Your task to perform on an android device: turn on priority inbox in the gmail app Image 0: 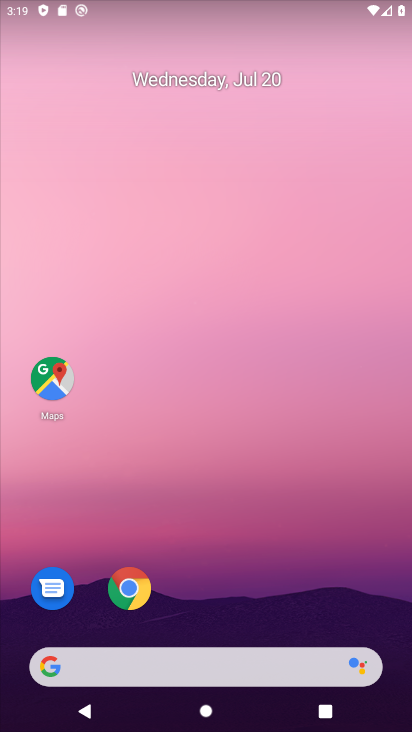
Step 0: drag from (216, 601) to (232, 155)
Your task to perform on an android device: turn on priority inbox in the gmail app Image 1: 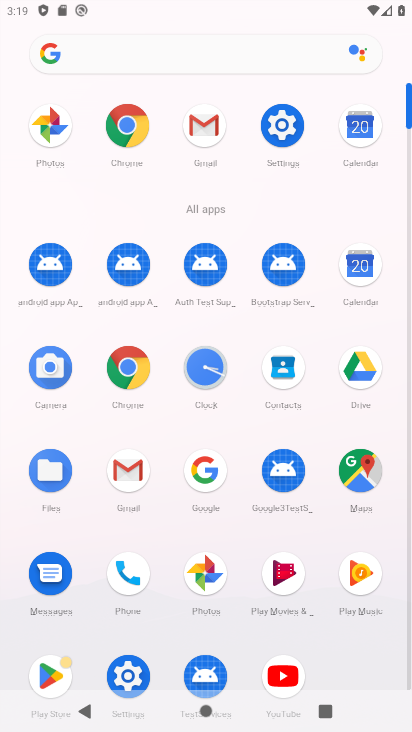
Step 1: click (202, 127)
Your task to perform on an android device: turn on priority inbox in the gmail app Image 2: 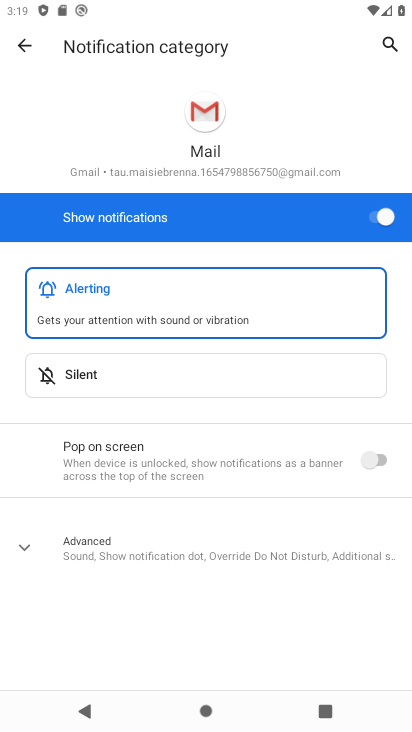
Step 2: click (23, 56)
Your task to perform on an android device: turn on priority inbox in the gmail app Image 3: 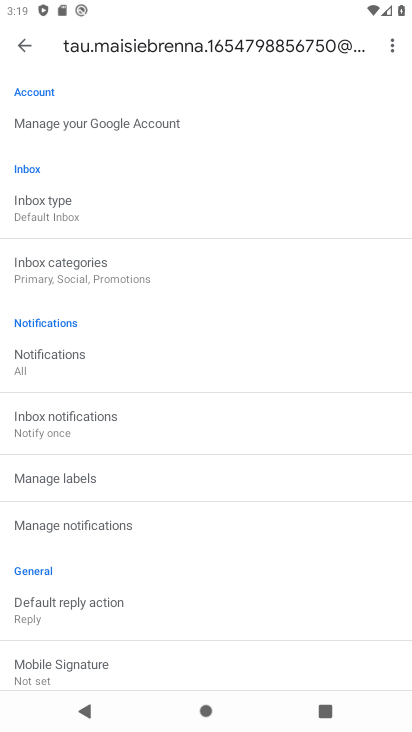
Step 3: click (59, 223)
Your task to perform on an android device: turn on priority inbox in the gmail app Image 4: 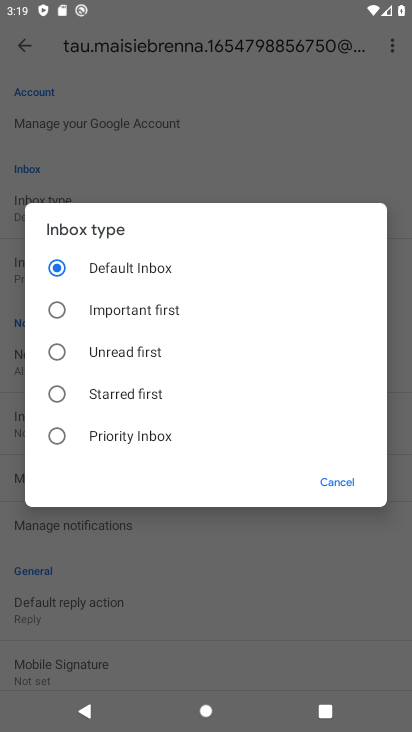
Step 4: task complete